Your task to perform on an android device: toggle pop-ups in chrome Image 0: 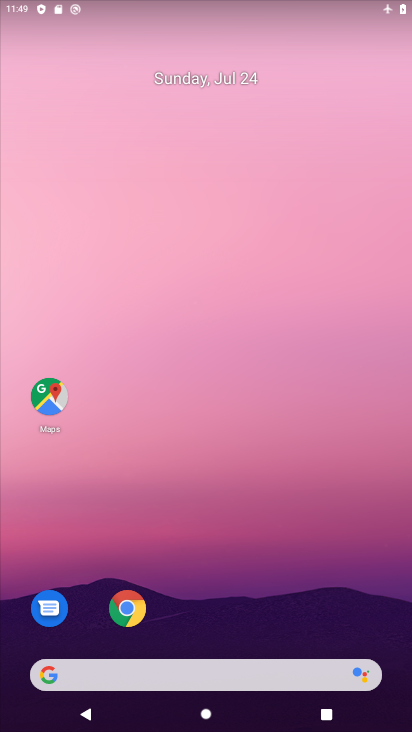
Step 0: click (137, 596)
Your task to perform on an android device: toggle pop-ups in chrome Image 1: 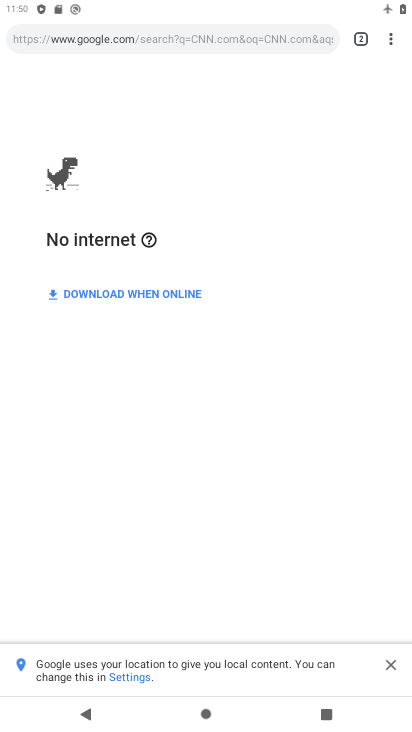
Step 1: click (386, 49)
Your task to perform on an android device: toggle pop-ups in chrome Image 2: 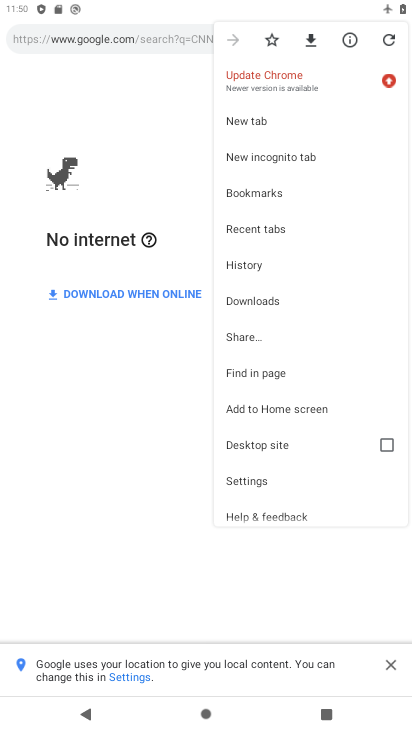
Step 2: click (282, 479)
Your task to perform on an android device: toggle pop-ups in chrome Image 3: 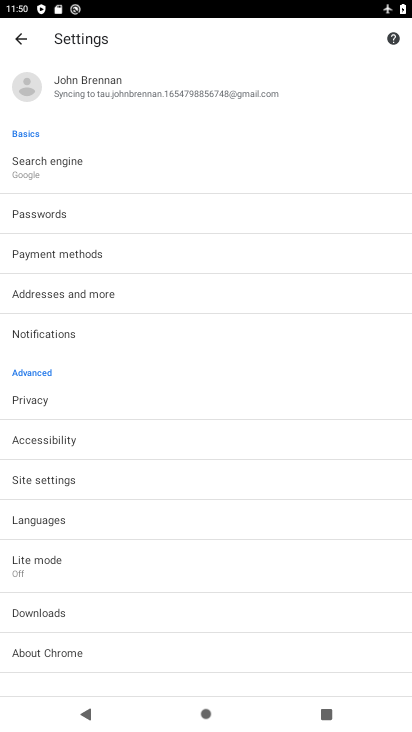
Step 3: click (116, 476)
Your task to perform on an android device: toggle pop-ups in chrome Image 4: 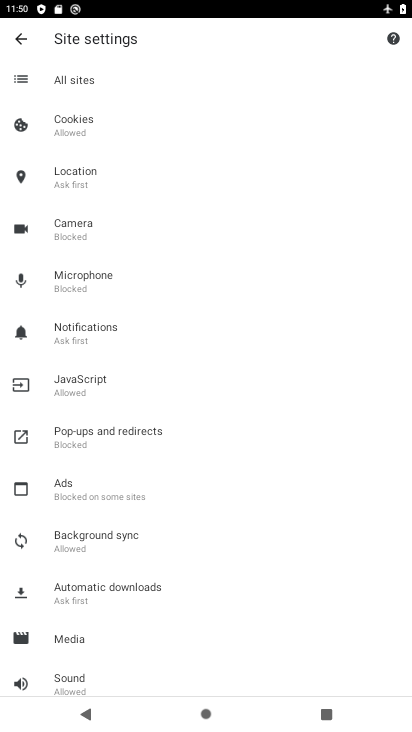
Step 4: click (145, 443)
Your task to perform on an android device: toggle pop-ups in chrome Image 5: 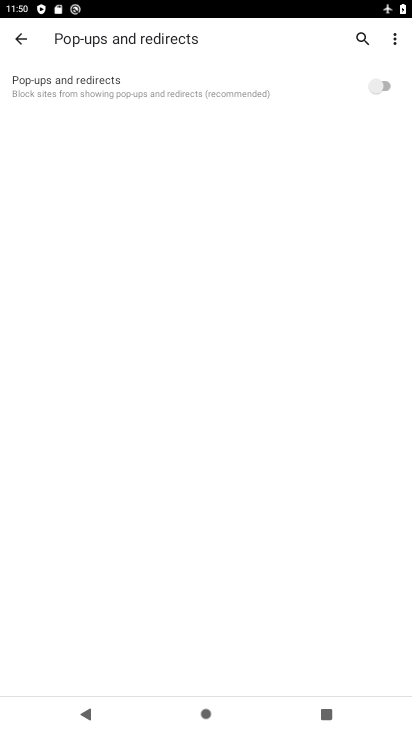
Step 5: click (378, 84)
Your task to perform on an android device: toggle pop-ups in chrome Image 6: 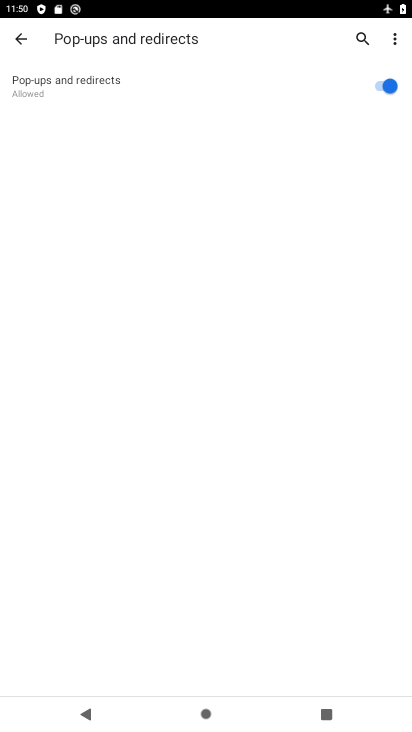
Step 6: task complete